Your task to perform on an android device: Open internet settings Image 0: 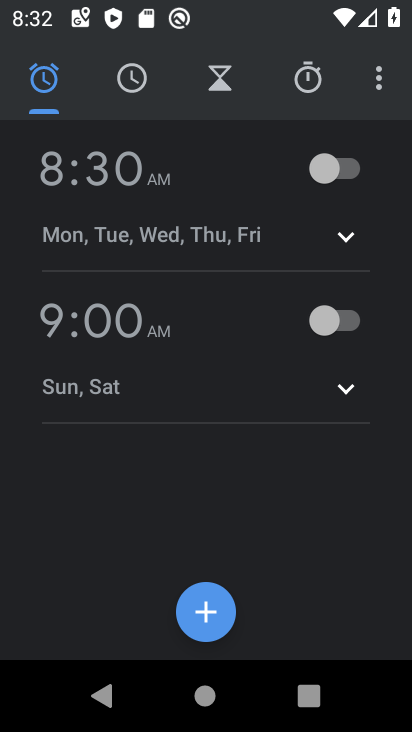
Step 0: press home button
Your task to perform on an android device: Open internet settings Image 1: 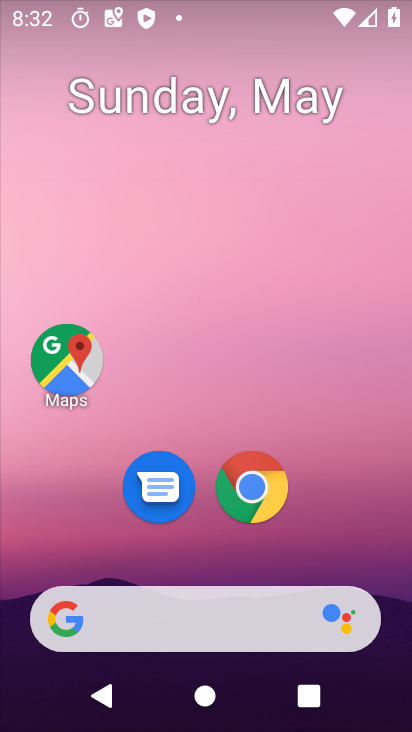
Step 1: drag from (49, 490) to (232, 73)
Your task to perform on an android device: Open internet settings Image 2: 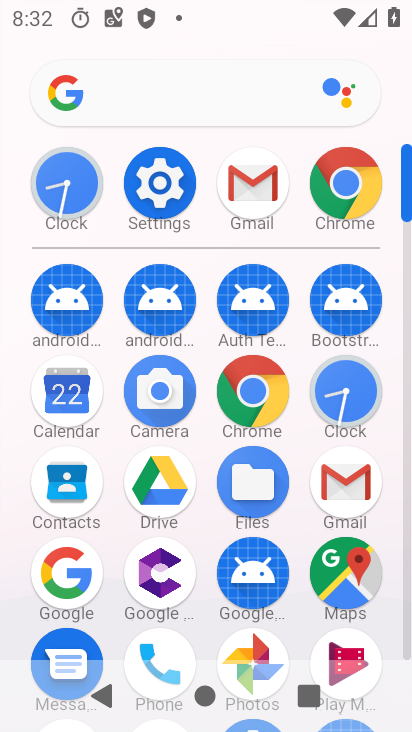
Step 2: click (147, 187)
Your task to perform on an android device: Open internet settings Image 3: 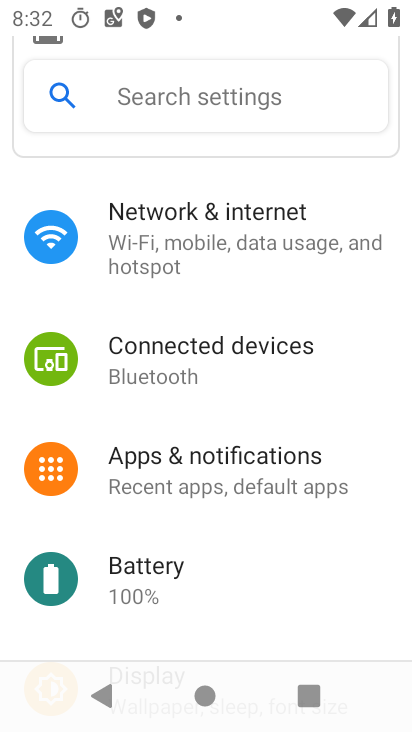
Step 3: click (197, 255)
Your task to perform on an android device: Open internet settings Image 4: 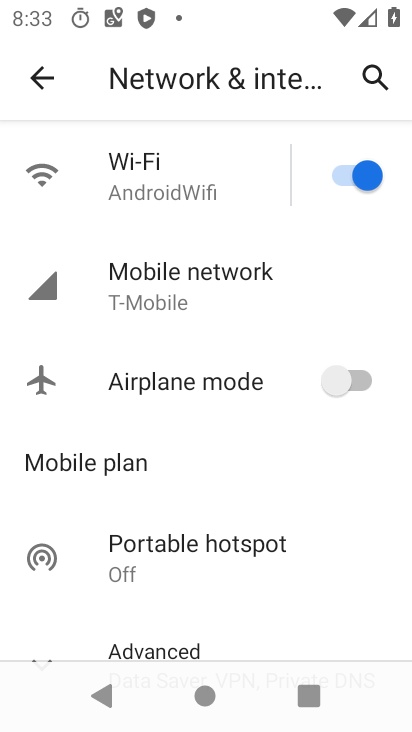
Step 4: click (192, 272)
Your task to perform on an android device: Open internet settings Image 5: 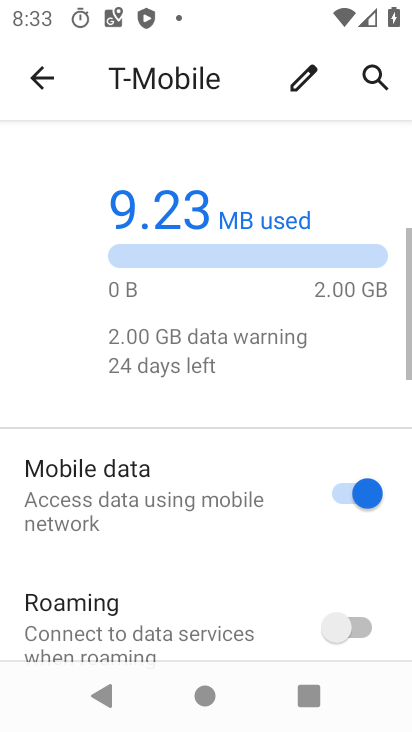
Step 5: task complete